Your task to perform on an android device: open a bookmark in the chrome app Image 0: 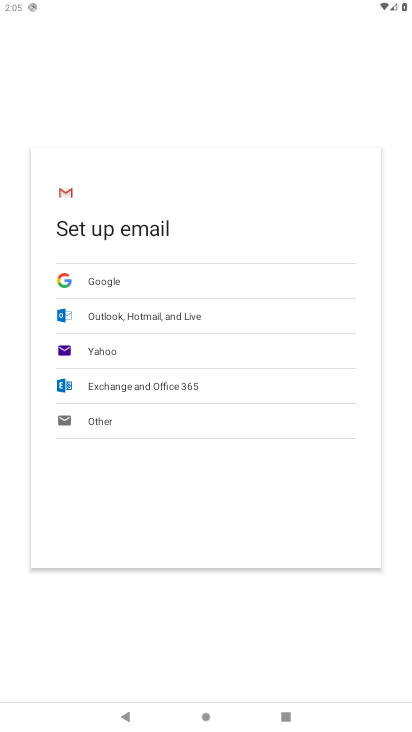
Step 0: press home button
Your task to perform on an android device: open a bookmark in the chrome app Image 1: 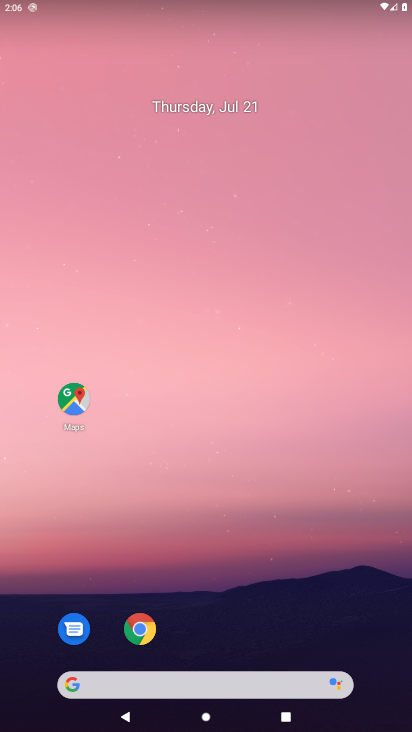
Step 1: click (133, 637)
Your task to perform on an android device: open a bookmark in the chrome app Image 2: 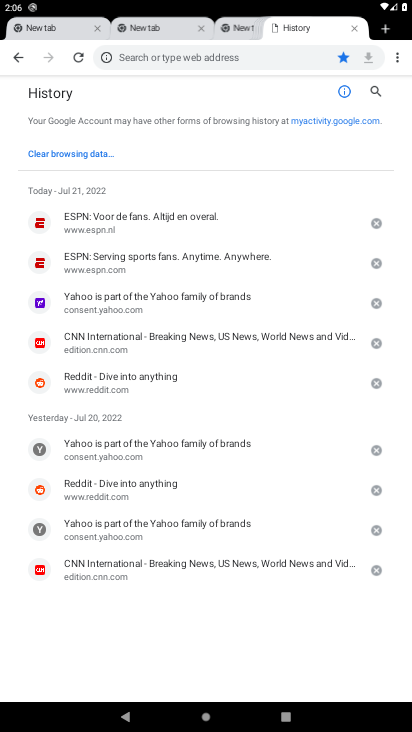
Step 2: click (401, 57)
Your task to perform on an android device: open a bookmark in the chrome app Image 3: 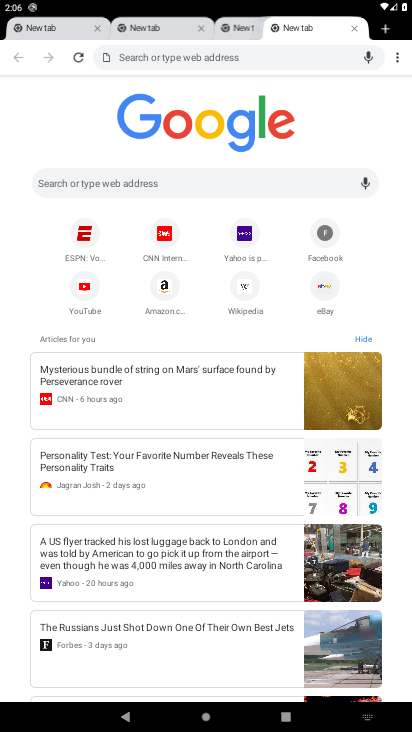
Step 3: task complete